Your task to perform on an android device: Open Google Maps and go to "Timeline" Image 0: 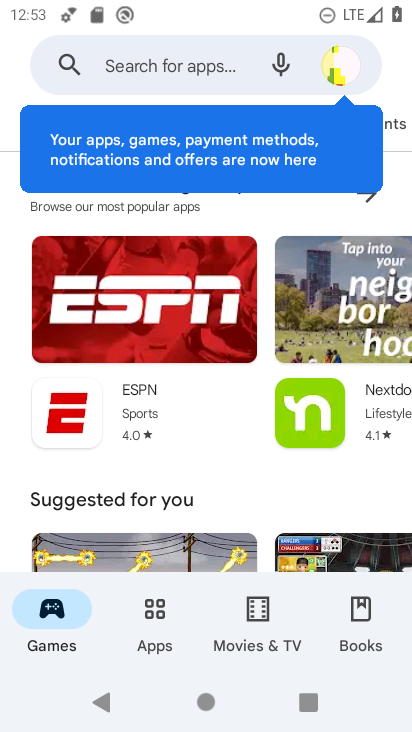
Step 0: press home button
Your task to perform on an android device: Open Google Maps and go to "Timeline" Image 1: 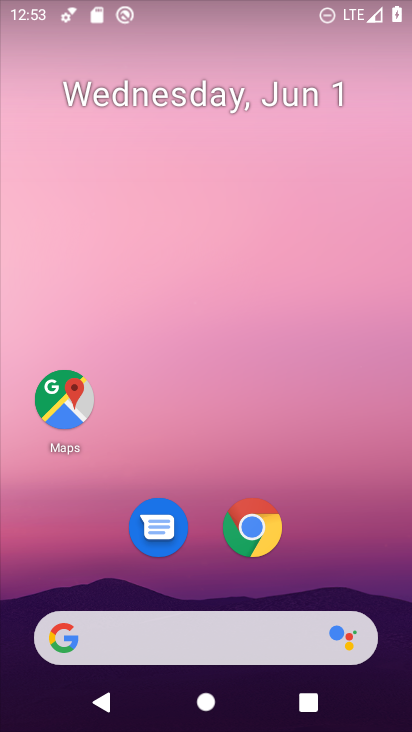
Step 1: click (60, 395)
Your task to perform on an android device: Open Google Maps and go to "Timeline" Image 2: 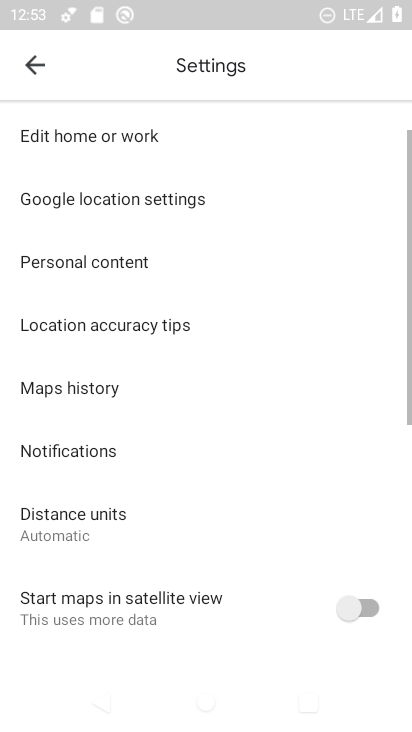
Step 2: click (31, 68)
Your task to perform on an android device: Open Google Maps and go to "Timeline" Image 3: 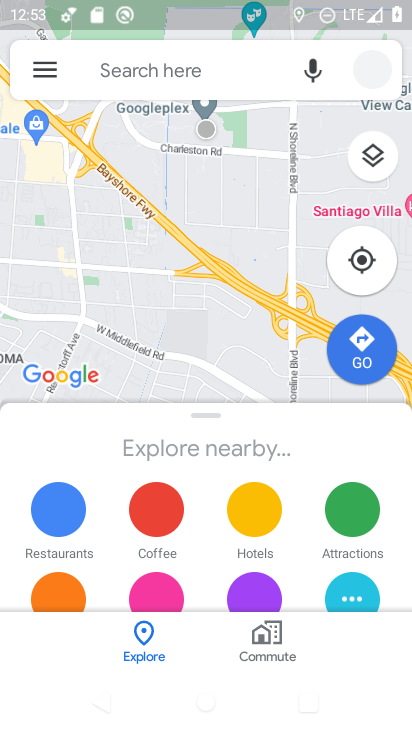
Step 3: click (38, 65)
Your task to perform on an android device: Open Google Maps and go to "Timeline" Image 4: 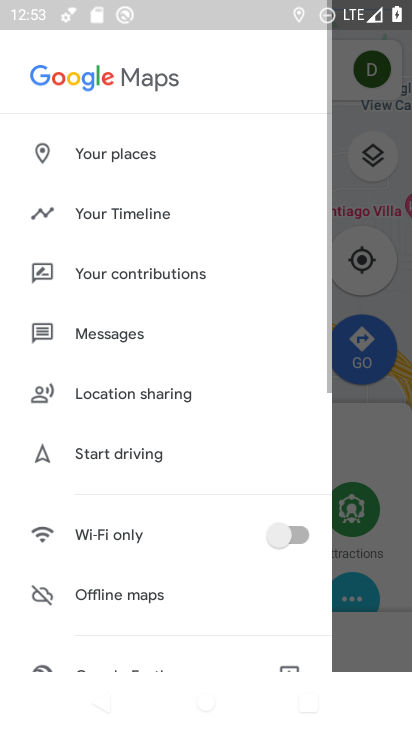
Step 4: click (145, 203)
Your task to perform on an android device: Open Google Maps and go to "Timeline" Image 5: 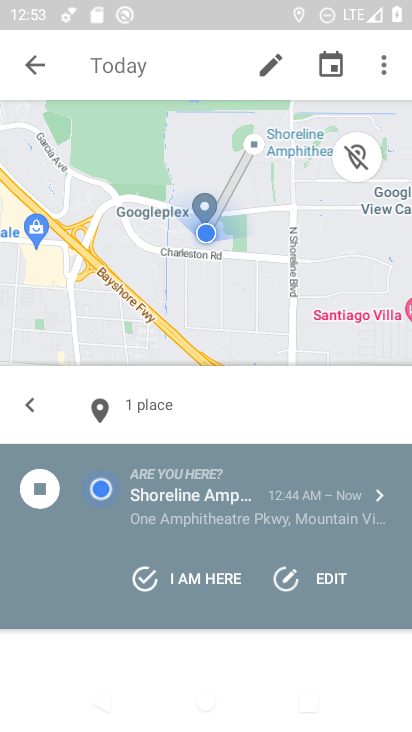
Step 5: task complete